Your task to perform on an android device: Open Amazon Image 0: 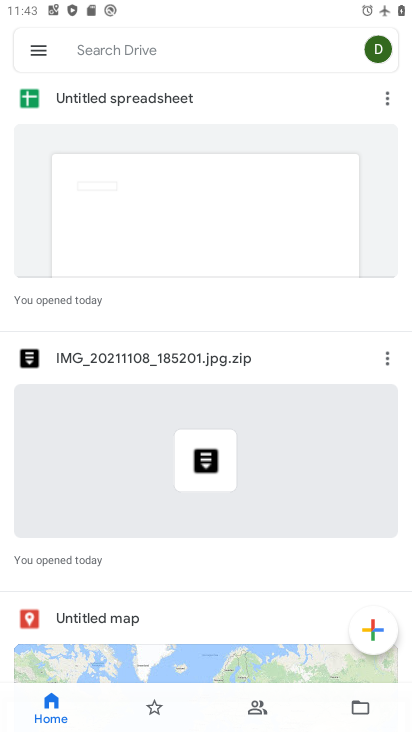
Step 0: press home button
Your task to perform on an android device: Open Amazon Image 1: 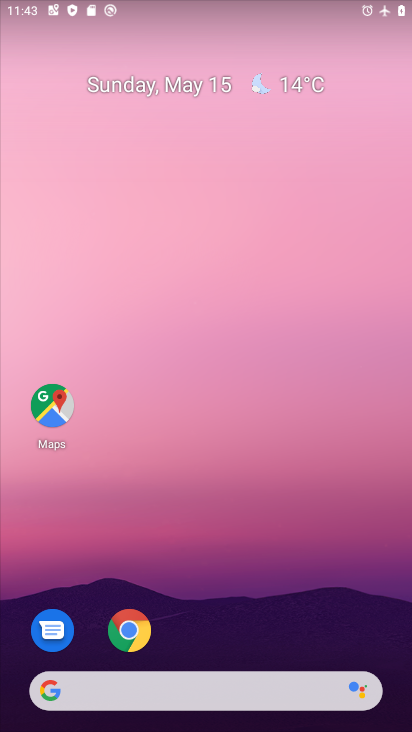
Step 1: click (133, 633)
Your task to perform on an android device: Open Amazon Image 2: 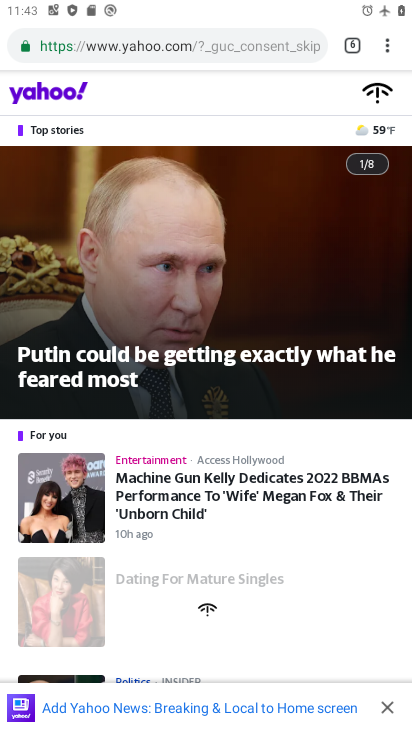
Step 2: click (387, 50)
Your task to perform on an android device: Open Amazon Image 3: 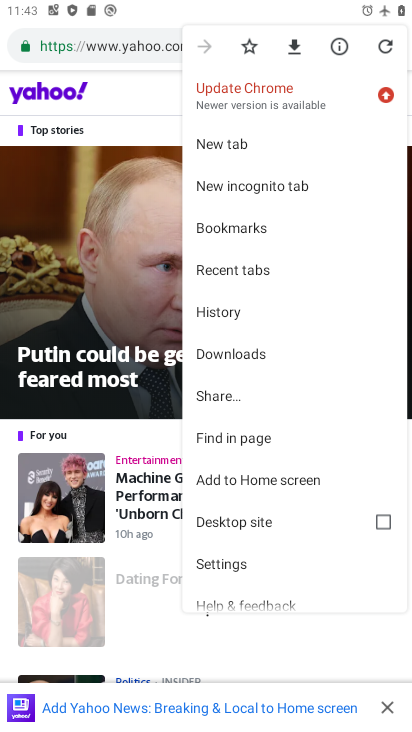
Step 3: click (220, 142)
Your task to perform on an android device: Open Amazon Image 4: 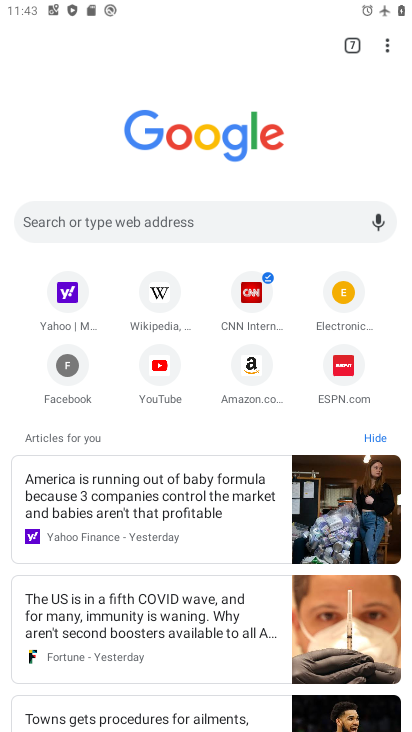
Step 4: click (195, 220)
Your task to perform on an android device: Open Amazon Image 5: 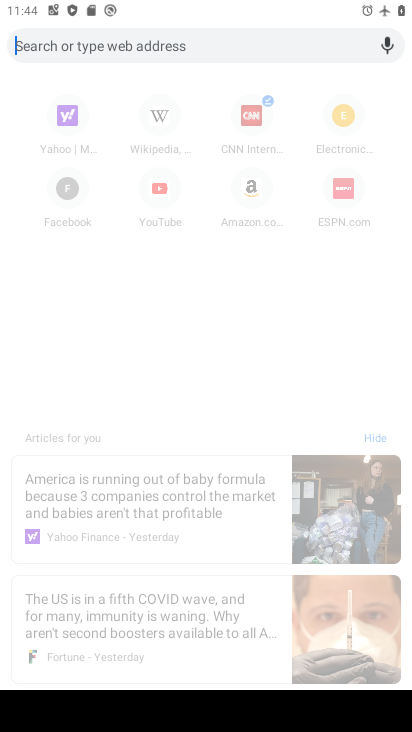
Step 5: type "Amazon"
Your task to perform on an android device: Open Amazon Image 6: 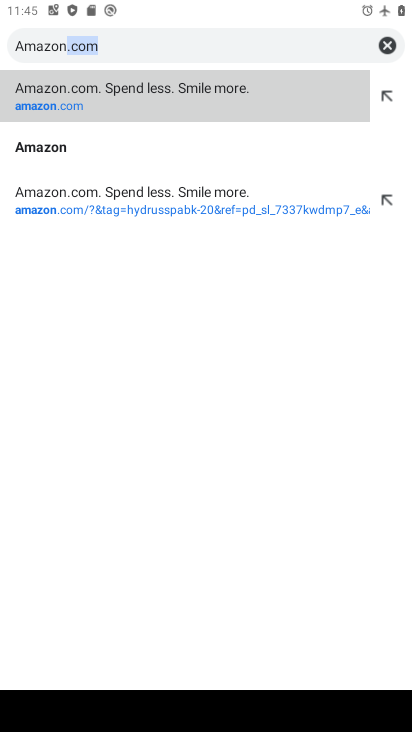
Step 6: click (73, 93)
Your task to perform on an android device: Open Amazon Image 7: 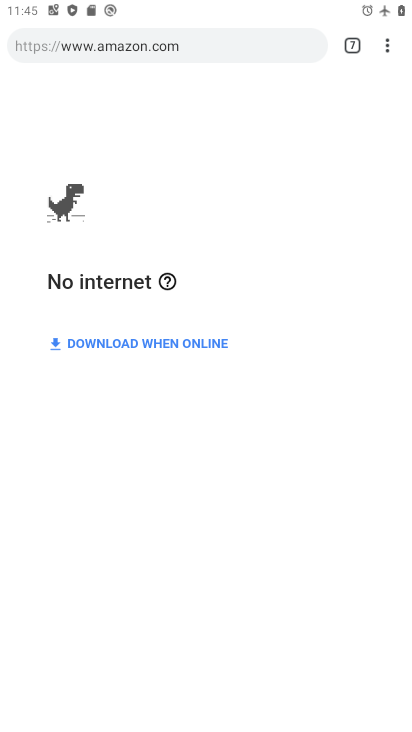
Step 7: task complete